Your task to perform on an android device: set the timer Image 0: 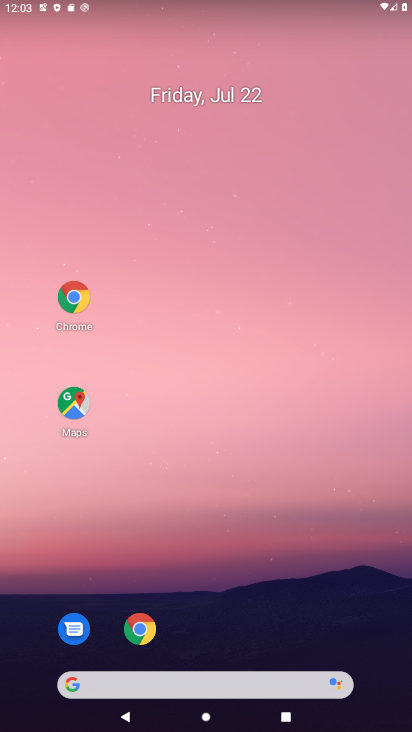
Step 0: drag from (296, 679) to (122, 129)
Your task to perform on an android device: set the timer Image 1: 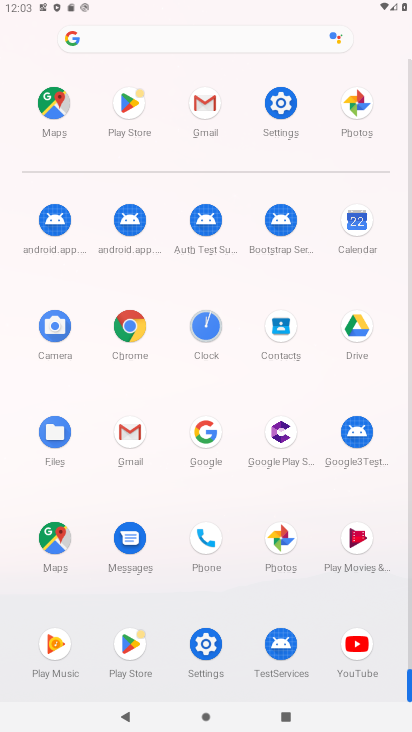
Step 1: click (199, 328)
Your task to perform on an android device: set the timer Image 2: 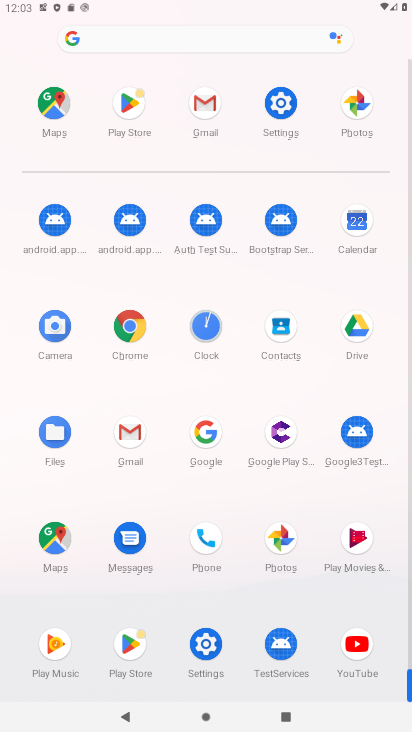
Step 2: click (202, 325)
Your task to perform on an android device: set the timer Image 3: 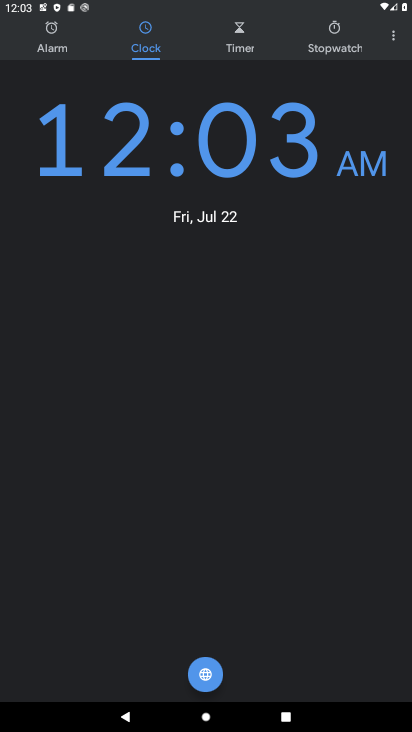
Step 3: click (244, 40)
Your task to perform on an android device: set the timer Image 4: 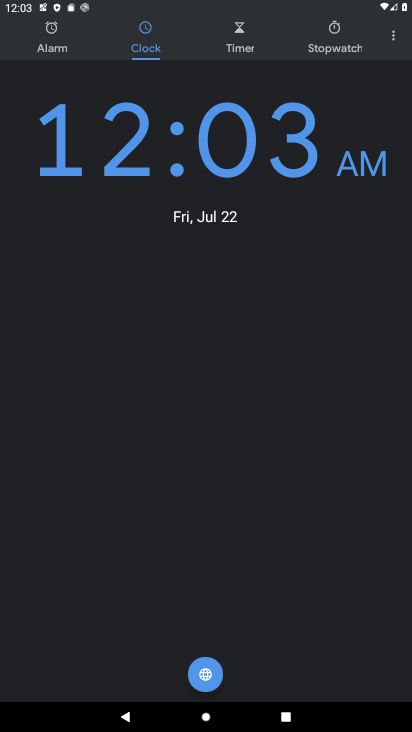
Step 4: click (242, 42)
Your task to perform on an android device: set the timer Image 5: 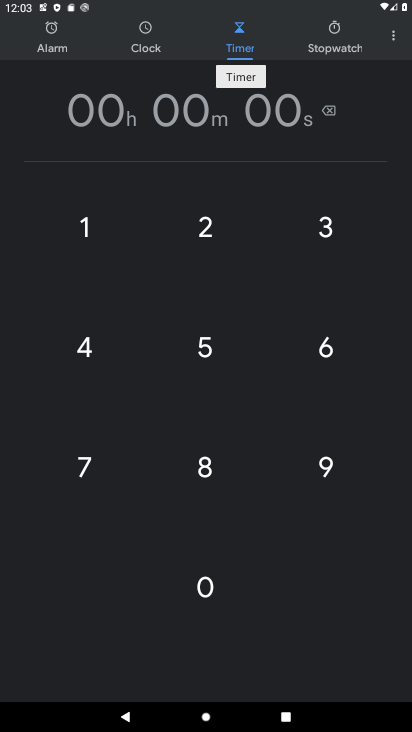
Step 5: click (203, 469)
Your task to perform on an android device: set the timer Image 6: 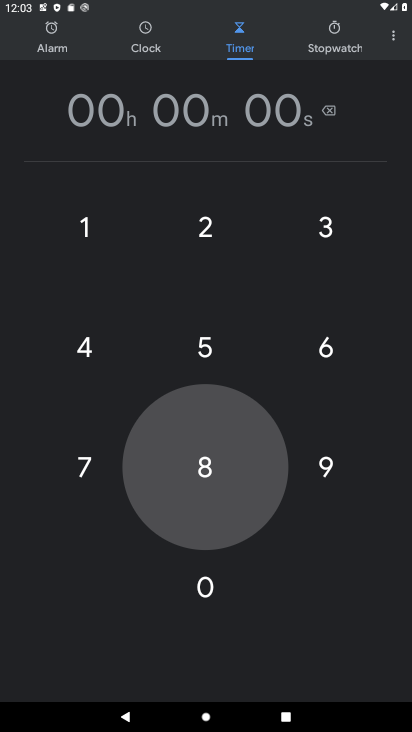
Step 6: click (198, 462)
Your task to perform on an android device: set the timer Image 7: 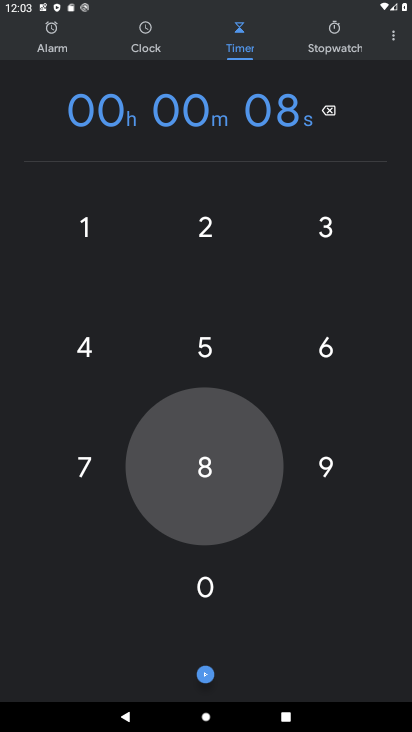
Step 7: click (198, 462)
Your task to perform on an android device: set the timer Image 8: 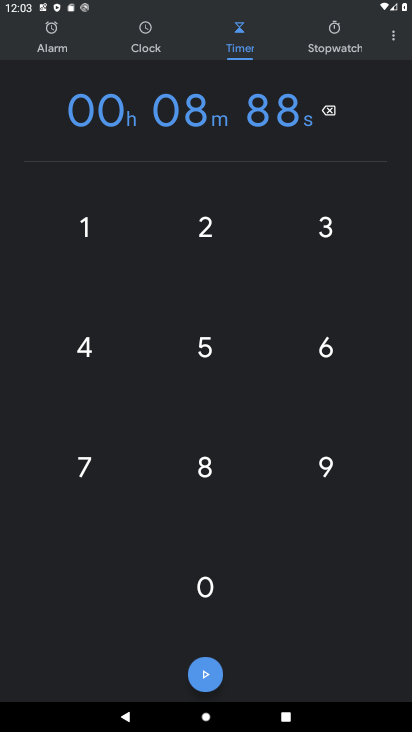
Step 8: click (210, 673)
Your task to perform on an android device: set the timer Image 9: 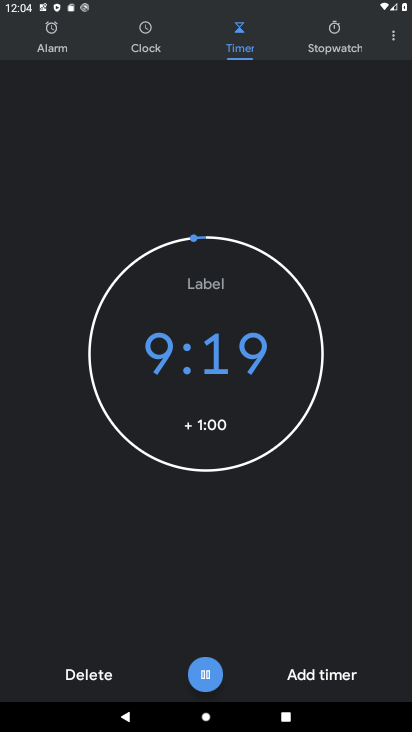
Step 9: click (209, 668)
Your task to perform on an android device: set the timer Image 10: 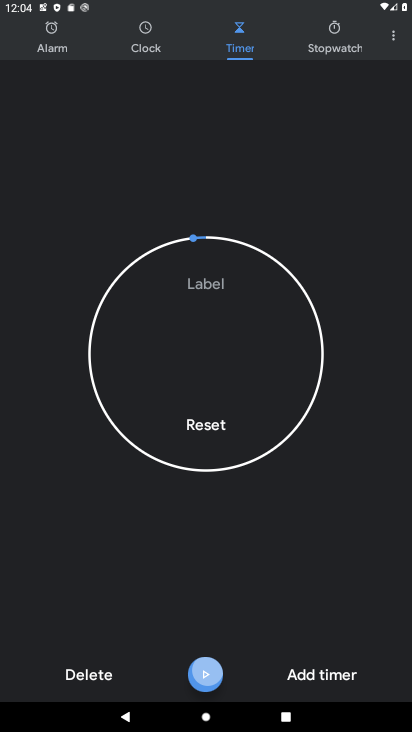
Step 10: click (208, 669)
Your task to perform on an android device: set the timer Image 11: 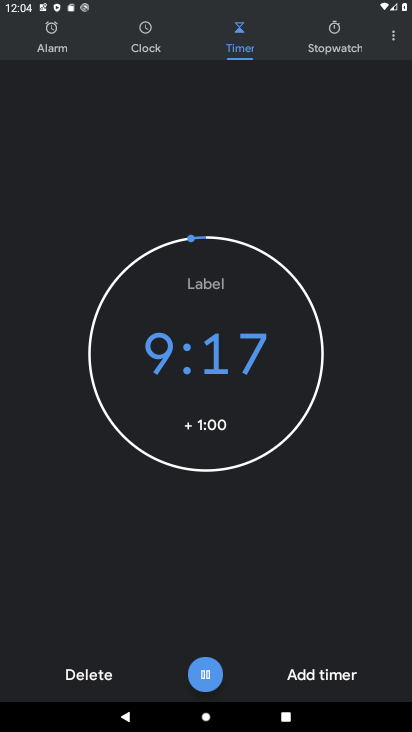
Step 11: click (207, 675)
Your task to perform on an android device: set the timer Image 12: 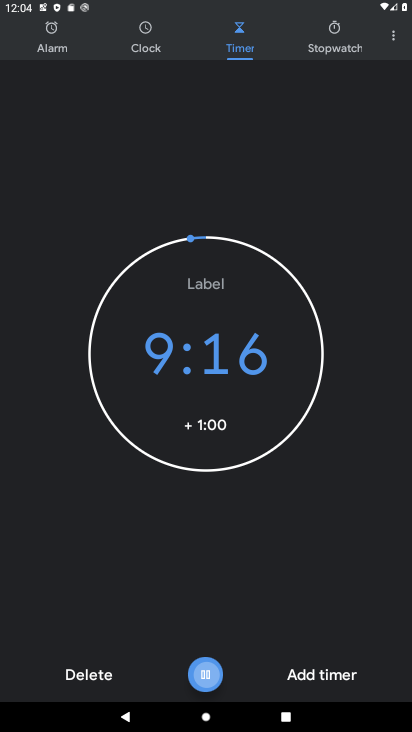
Step 12: click (204, 675)
Your task to perform on an android device: set the timer Image 13: 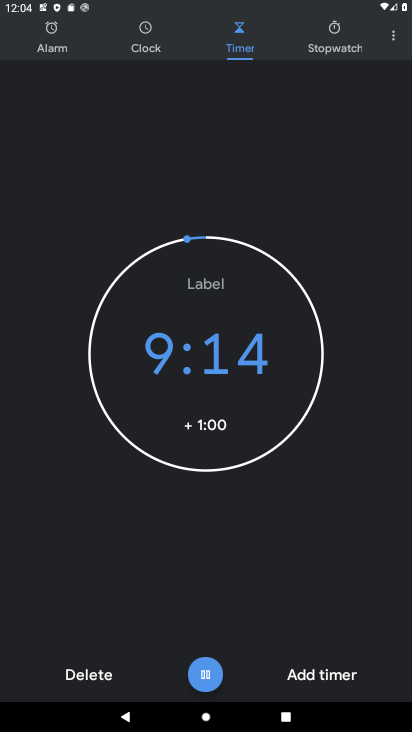
Step 13: click (204, 678)
Your task to perform on an android device: set the timer Image 14: 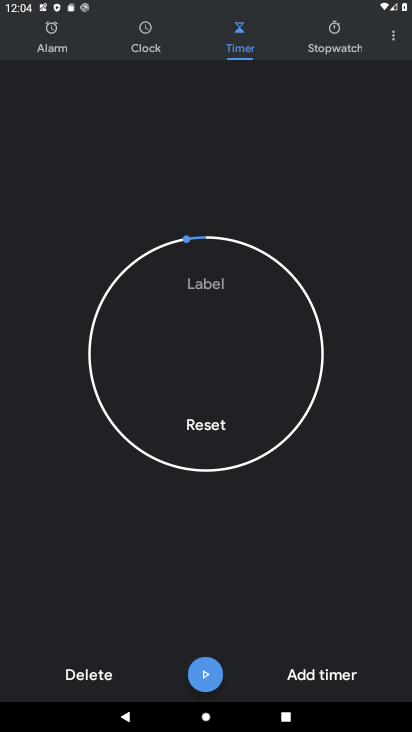
Step 14: task complete